Your task to perform on an android device: Do I have any events today? Image 0: 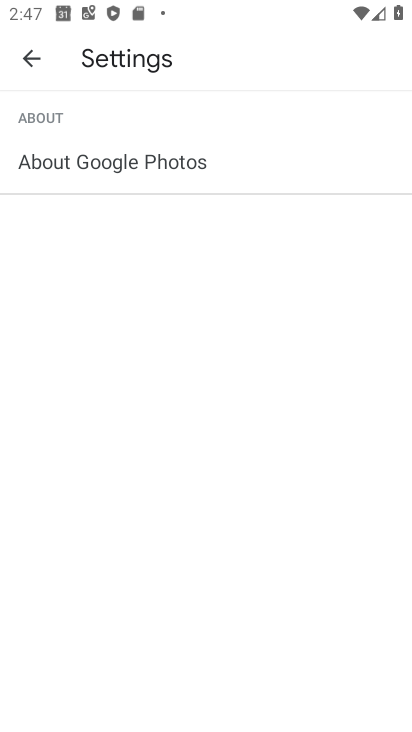
Step 0: press back button
Your task to perform on an android device: Do I have any events today? Image 1: 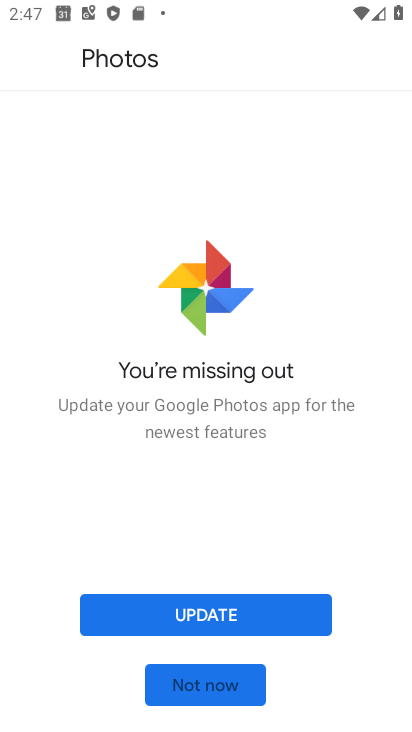
Step 1: press home button
Your task to perform on an android device: Do I have any events today? Image 2: 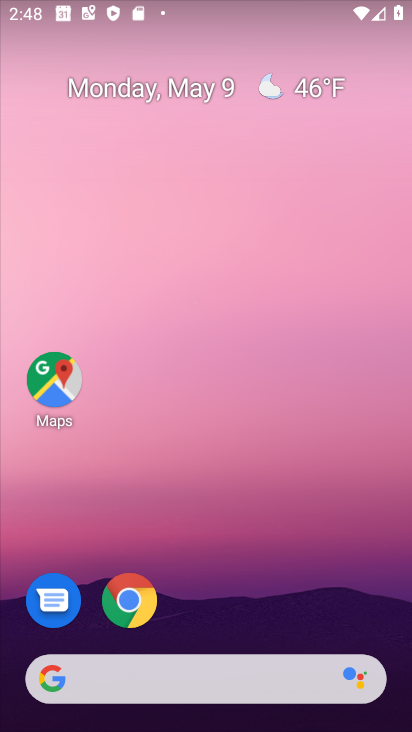
Step 2: drag from (218, 619) to (353, 56)
Your task to perform on an android device: Do I have any events today? Image 3: 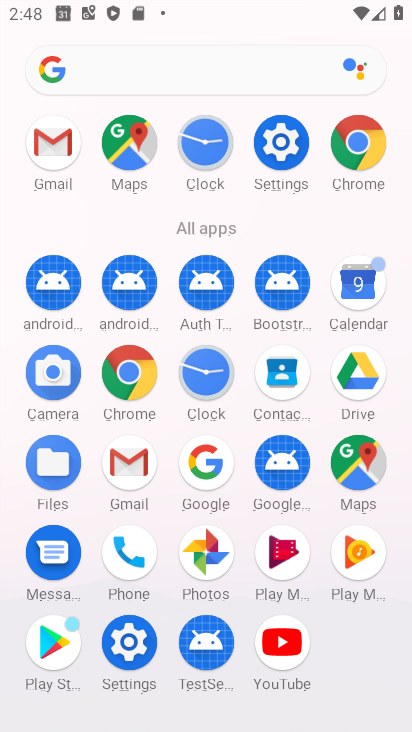
Step 3: click (364, 268)
Your task to perform on an android device: Do I have any events today? Image 4: 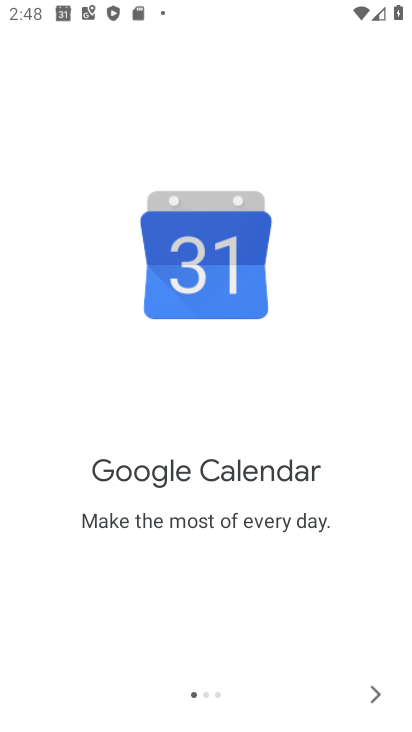
Step 4: click (370, 685)
Your task to perform on an android device: Do I have any events today? Image 5: 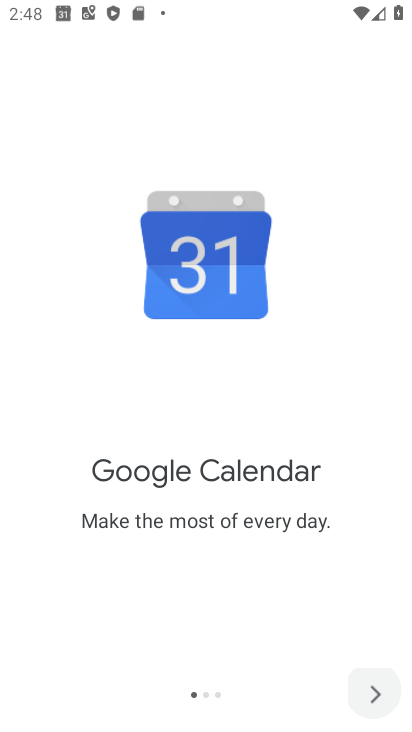
Step 5: click (370, 685)
Your task to perform on an android device: Do I have any events today? Image 6: 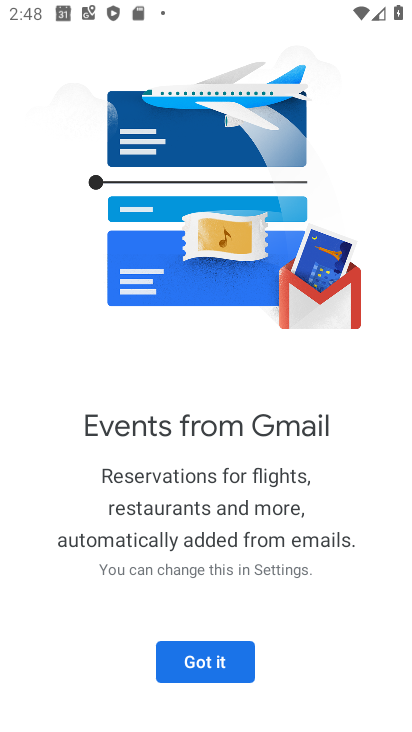
Step 6: click (212, 658)
Your task to perform on an android device: Do I have any events today? Image 7: 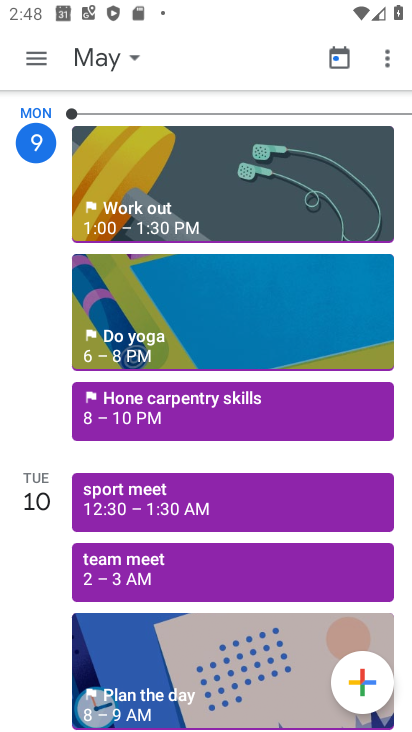
Step 7: click (156, 312)
Your task to perform on an android device: Do I have any events today? Image 8: 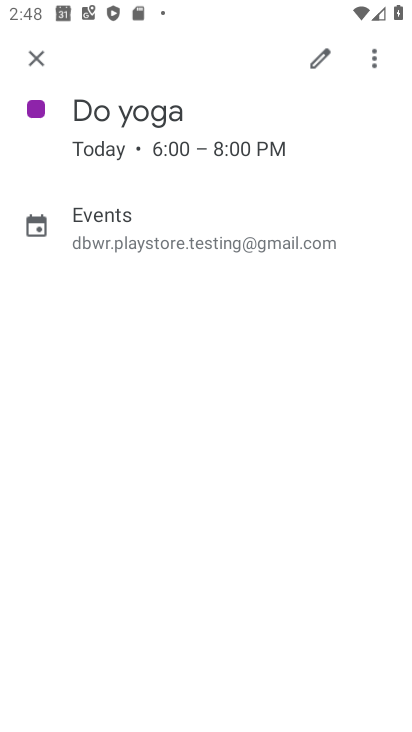
Step 8: task complete